Your task to perform on an android device: turn on airplane mode Image 0: 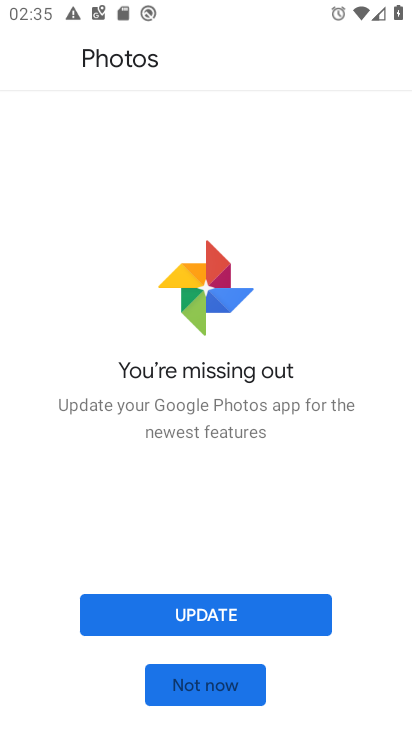
Step 0: press home button
Your task to perform on an android device: turn on airplane mode Image 1: 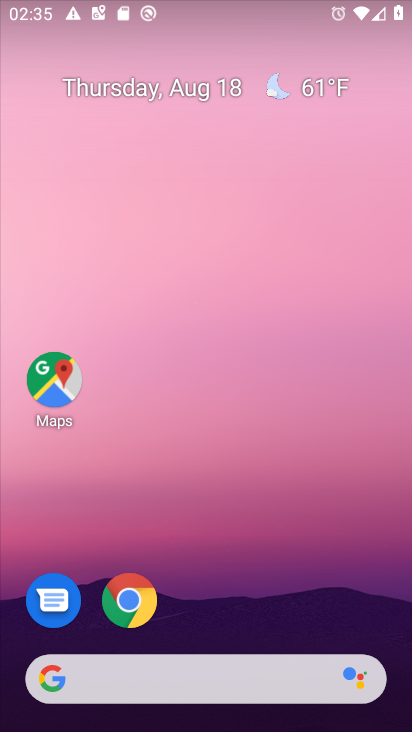
Step 1: click (234, 372)
Your task to perform on an android device: turn on airplane mode Image 2: 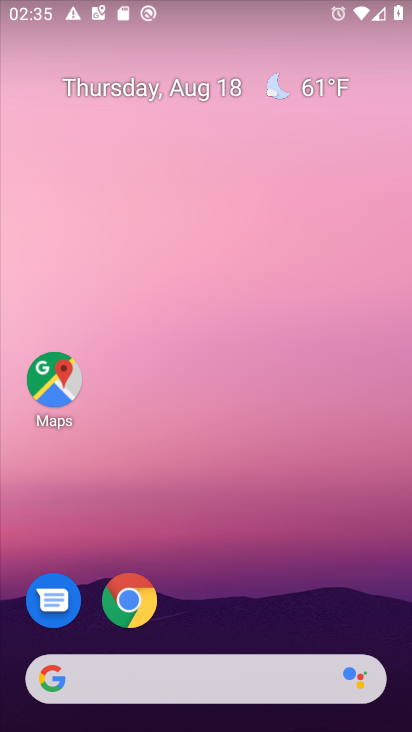
Step 2: drag from (251, 5) to (242, 467)
Your task to perform on an android device: turn on airplane mode Image 3: 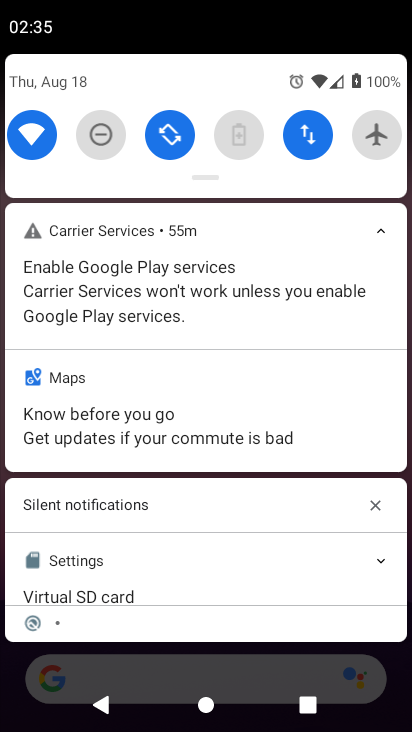
Step 3: click (382, 142)
Your task to perform on an android device: turn on airplane mode Image 4: 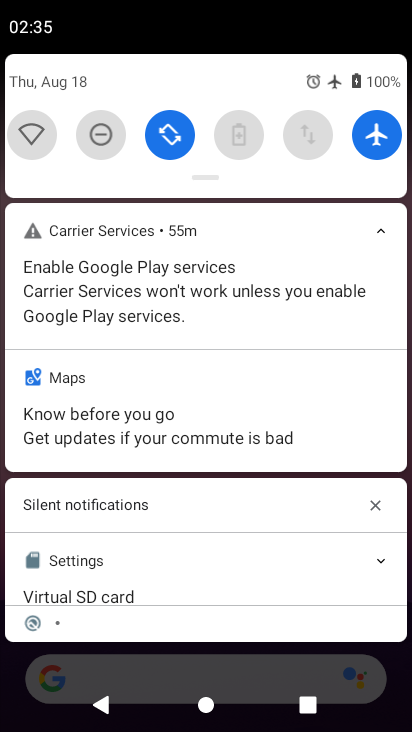
Step 4: task complete